Your task to perform on an android device: delete browsing data in the chrome app Image 0: 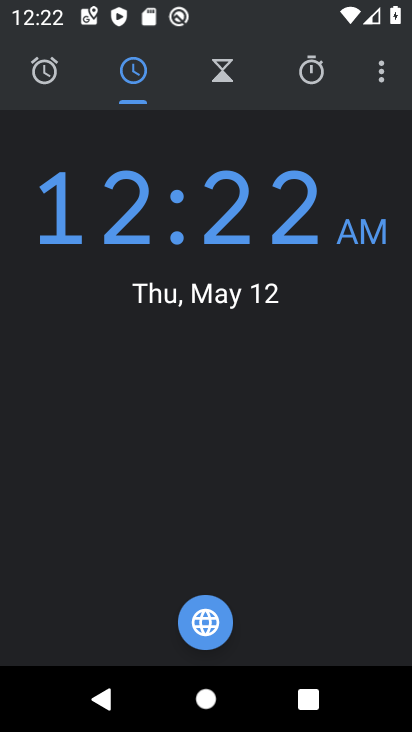
Step 0: press home button
Your task to perform on an android device: delete browsing data in the chrome app Image 1: 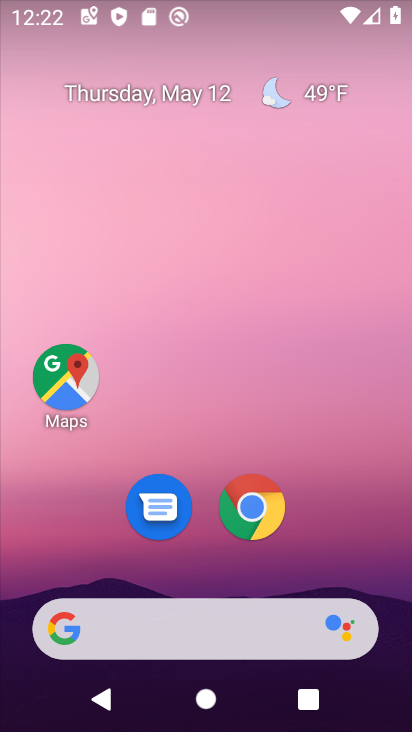
Step 1: click (255, 513)
Your task to perform on an android device: delete browsing data in the chrome app Image 2: 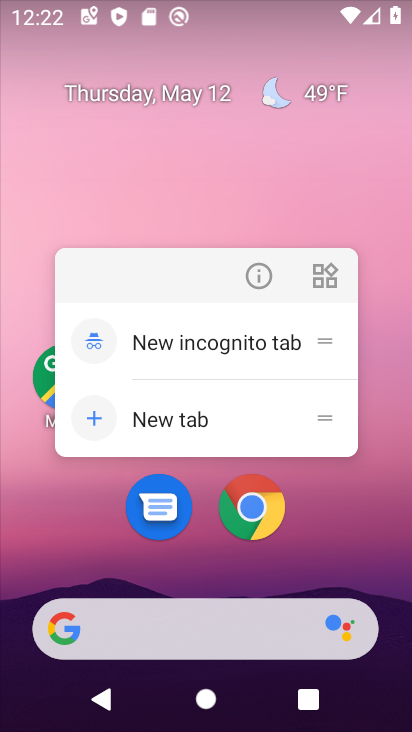
Step 2: click (246, 498)
Your task to perform on an android device: delete browsing data in the chrome app Image 3: 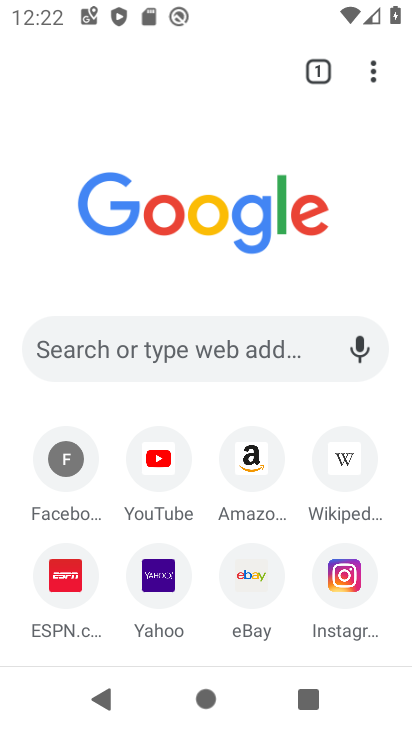
Step 3: click (366, 76)
Your task to perform on an android device: delete browsing data in the chrome app Image 4: 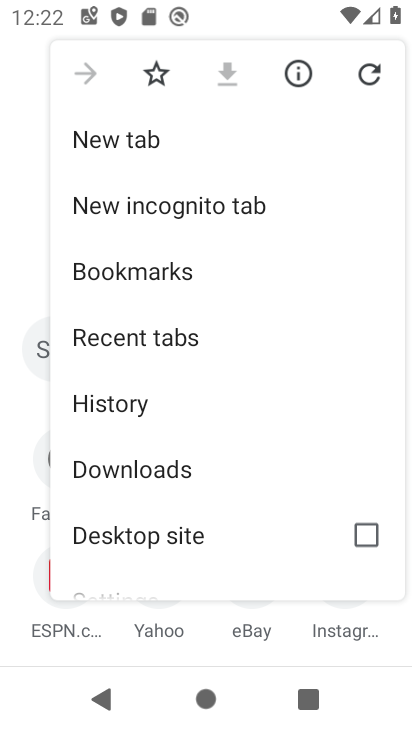
Step 4: click (154, 406)
Your task to perform on an android device: delete browsing data in the chrome app Image 5: 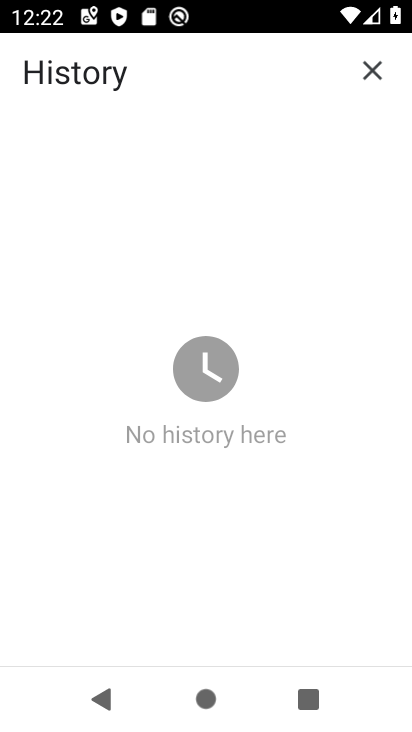
Step 5: task complete